Your task to perform on an android device: Open Reddit.com Image 0: 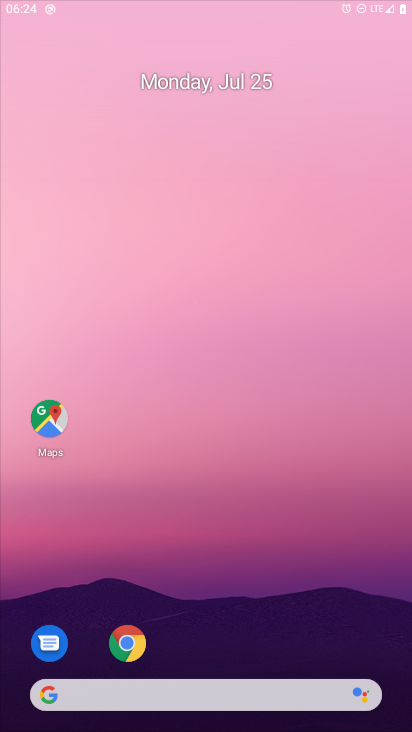
Step 0: press home button
Your task to perform on an android device: Open Reddit.com Image 1: 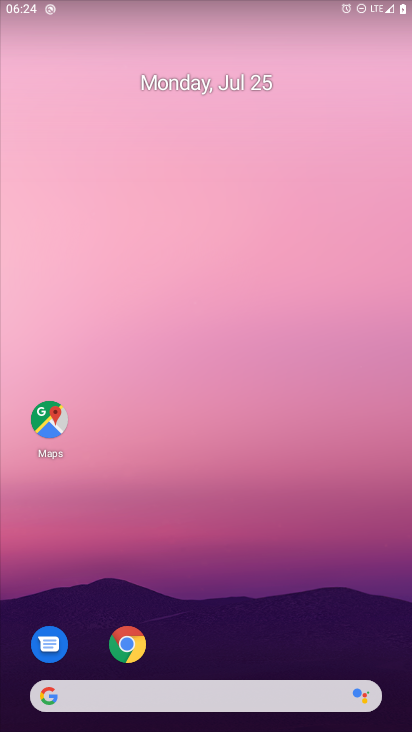
Step 1: click (48, 700)
Your task to perform on an android device: Open Reddit.com Image 2: 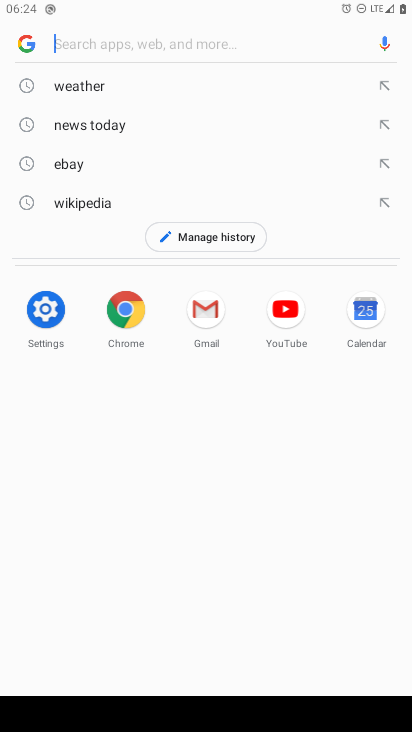
Step 2: type "Reddit.com"
Your task to perform on an android device: Open Reddit.com Image 3: 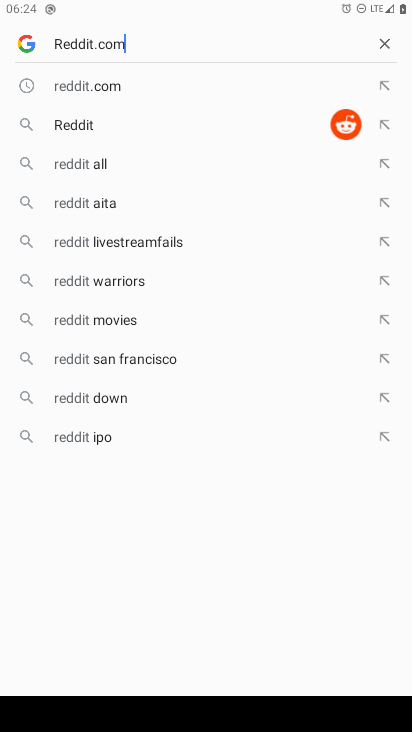
Step 3: press enter
Your task to perform on an android device: Open Reddit.com Image 4: 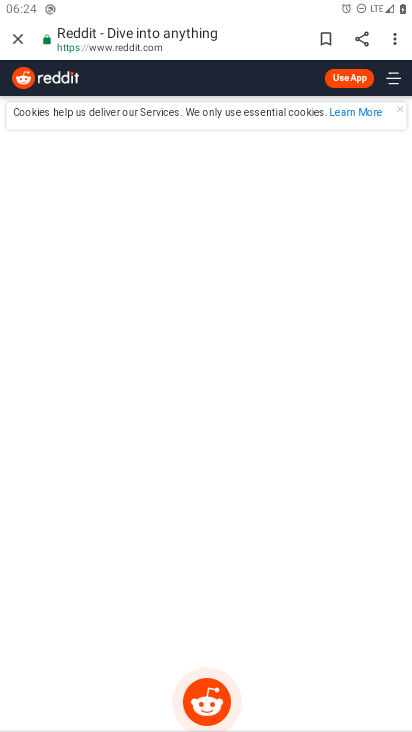
Step 4: task complete